Your task to perform on an android device: Go to Reddit.com Image 0: 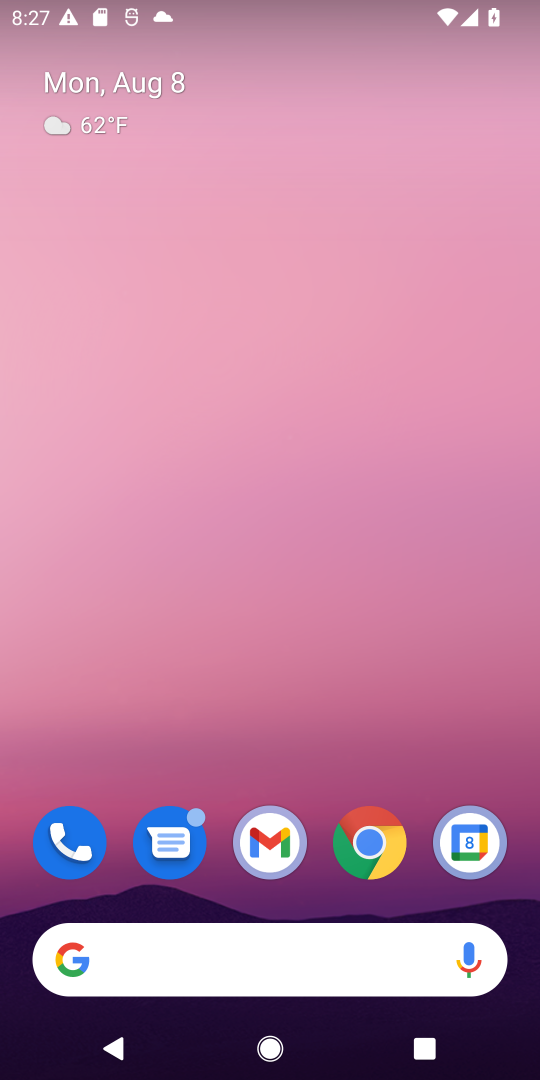
Step 0: drag from (308, 753) to (368, 75)
Your task to perform on an android device: Go to Reddit.com Image 1: 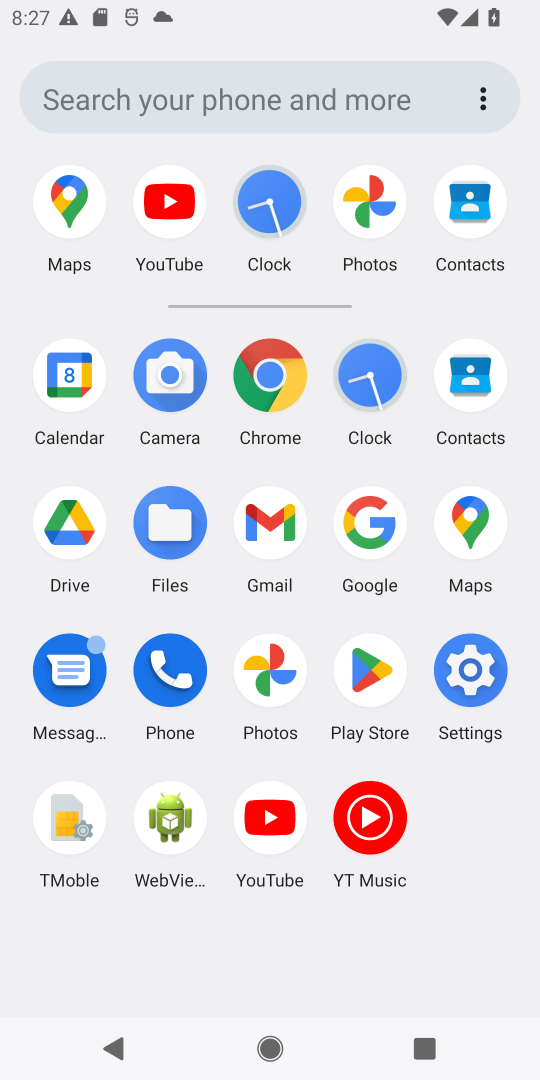
Step 1: press back button
Your task to perform on an android device: Go to Reddit.com Image 2: 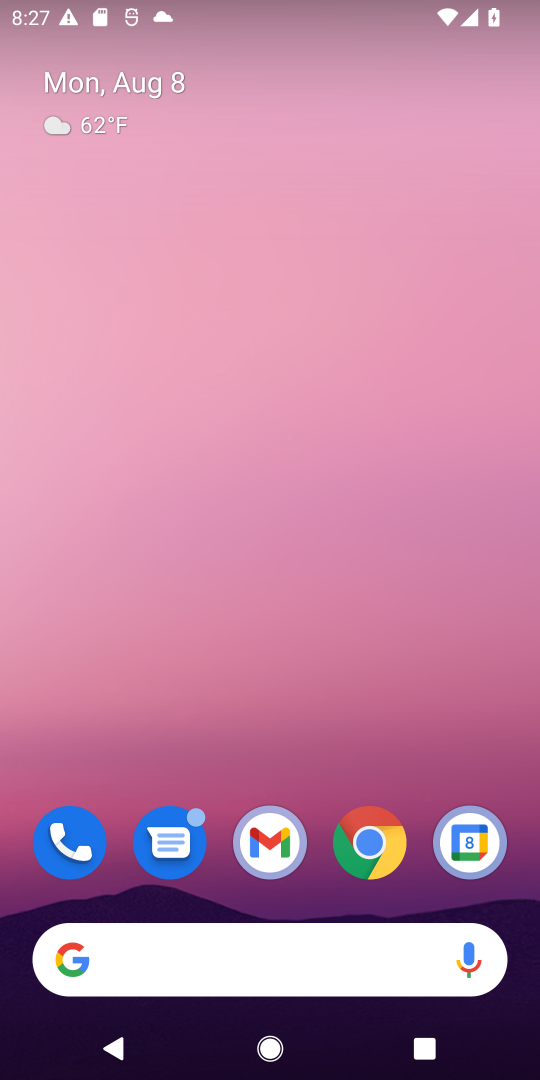
Step 2: click (331, 962)
Your task to perform on an android device: Go to Reddit.com Image 3: 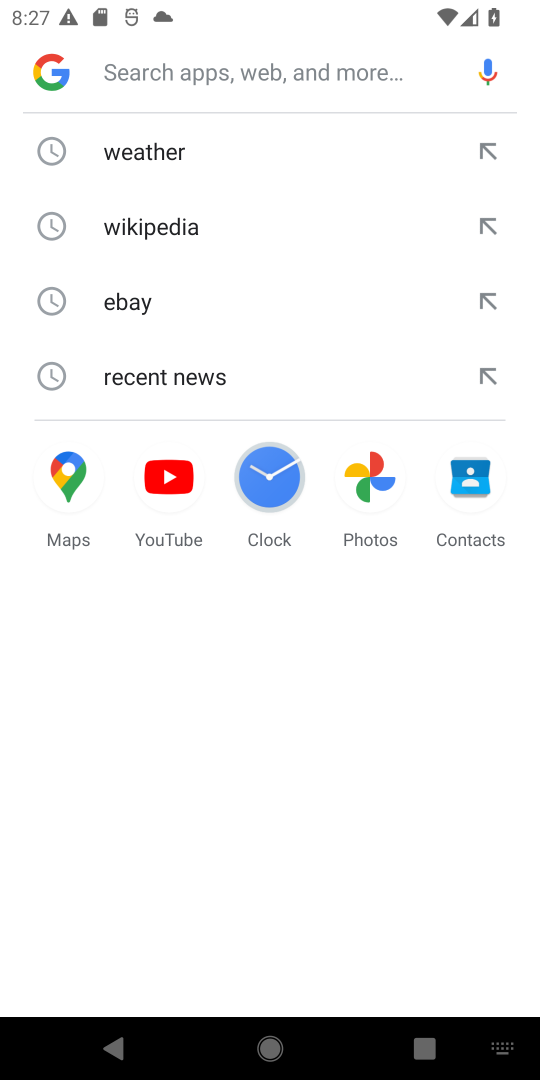
Step 3: type "reddit.com"
Your task to perform on an android device: Go to Reddit.com Image 4: 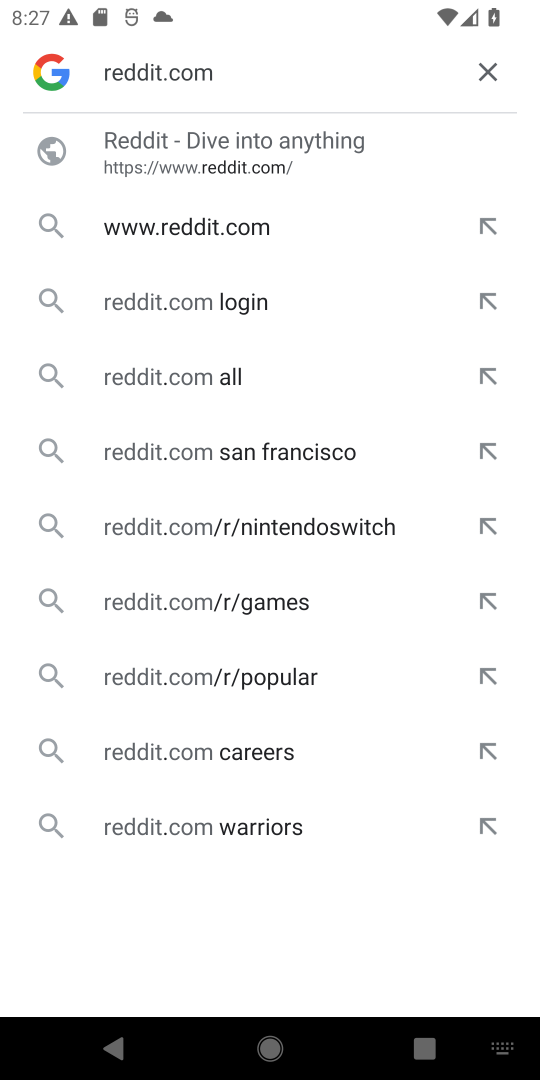
Step 4: click (252, 158)
Your task to perform on an android device: Go to Reddit.com Image 5: 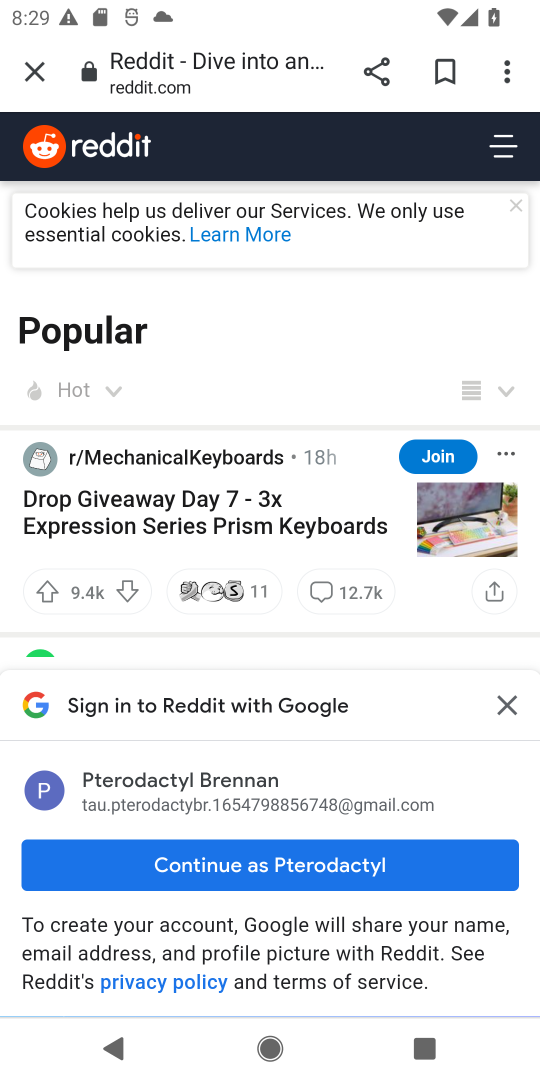
Step 5: task complete